Your task to perform on an android device: add a contact in the contacts app Image 0: 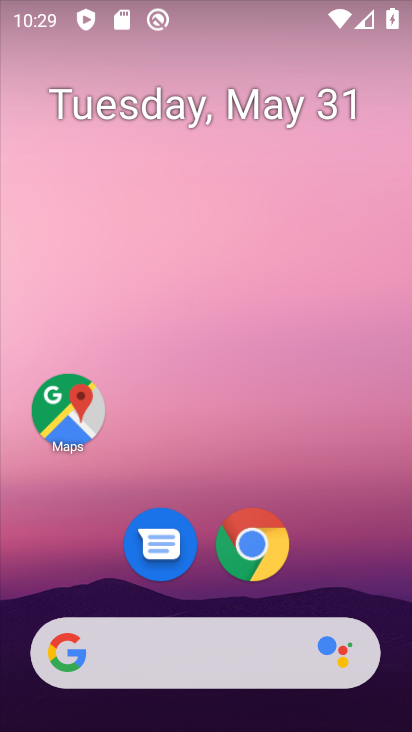
Step 0: drag from (196, 592) to (211, 200)
Your task to perform on an android device: add a contact in the contacts app Image 1: 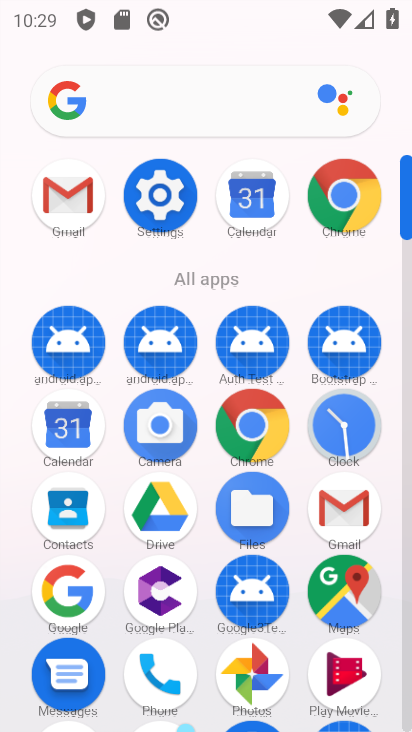
Step 1: click (82, 522)
Your task to perform on an android device: add a contact in the contacts app Image 2: 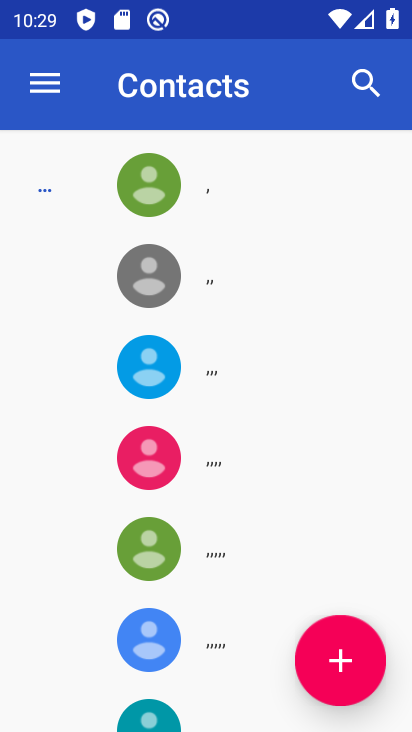
Step 2: click (370, 662)
Your task to perform on an android device: add a contact in the contacts app Image 3: 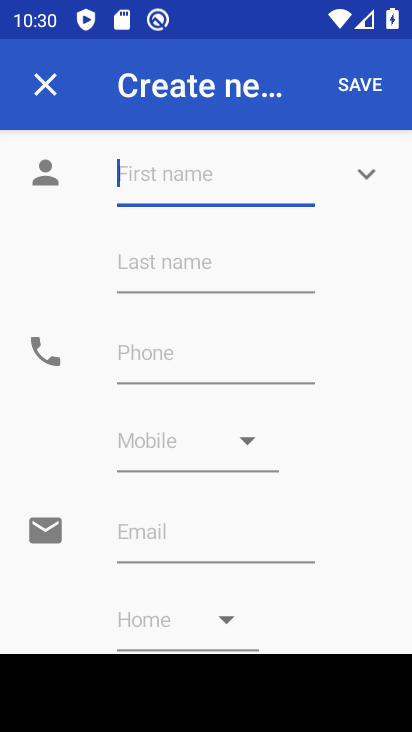
Step 3: type "fgngf"
Your task to perform on an android device: add a contact in the contacts app Image 4: 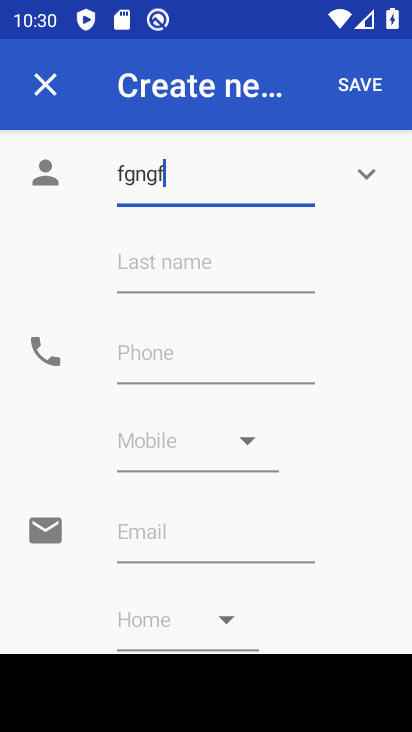
Step 4: click (211, 362)
Your task to perform on an android device: add a contact in the contacts app Image 5: 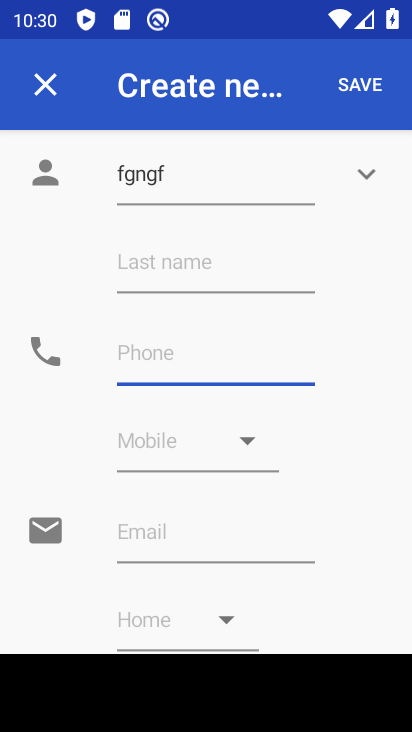
Step 5: type "976657457"
Your task to perform on an android device: add a contact in the contacts app Image 6: 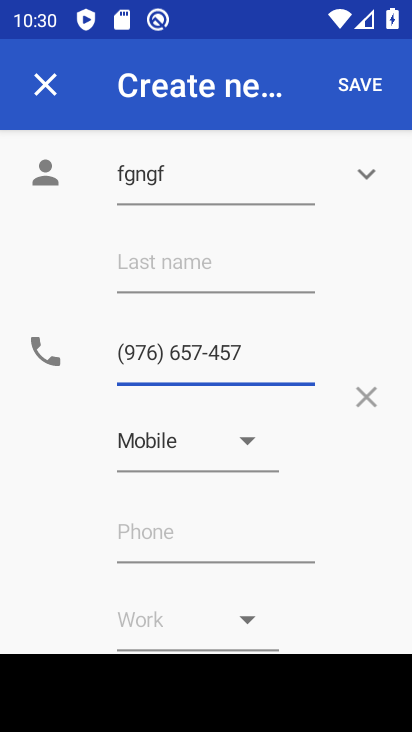
Step 6: click (376, 77)
Your task to perform on an android device: add a contact in the contacts app Image 7: 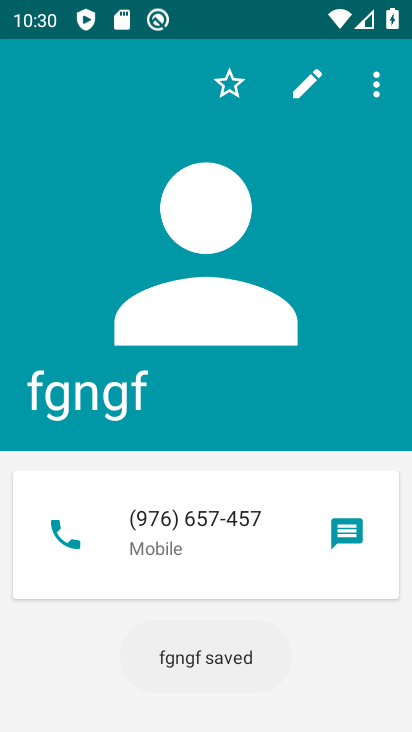
Step 7: task complete